Your task to perform on an android device: Go to internet settings Image 0: 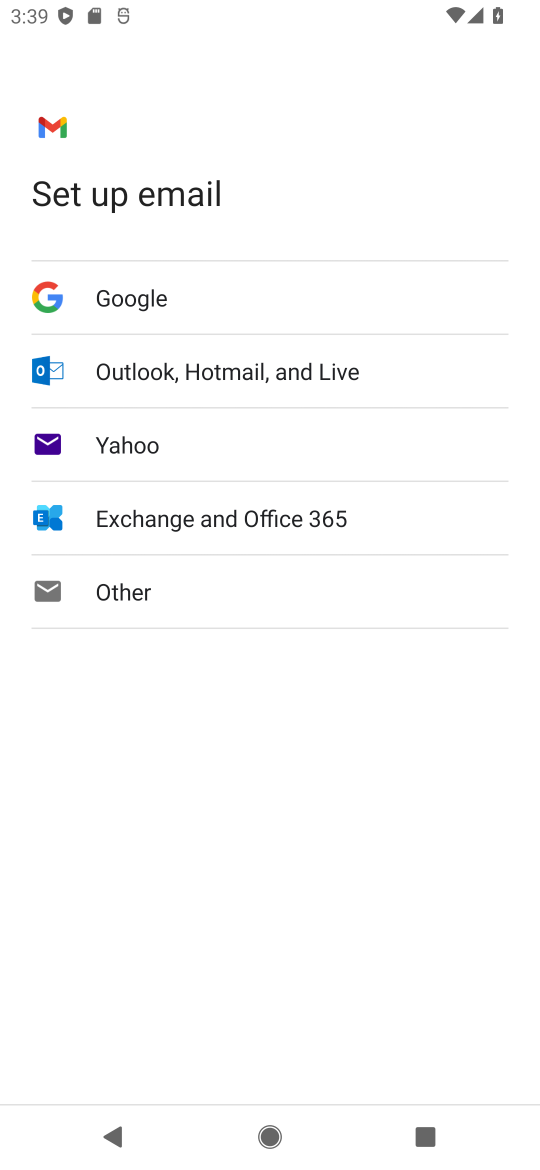
Step 0: press home button
Your task to perform on an android device: Go to internet settings Image 1: 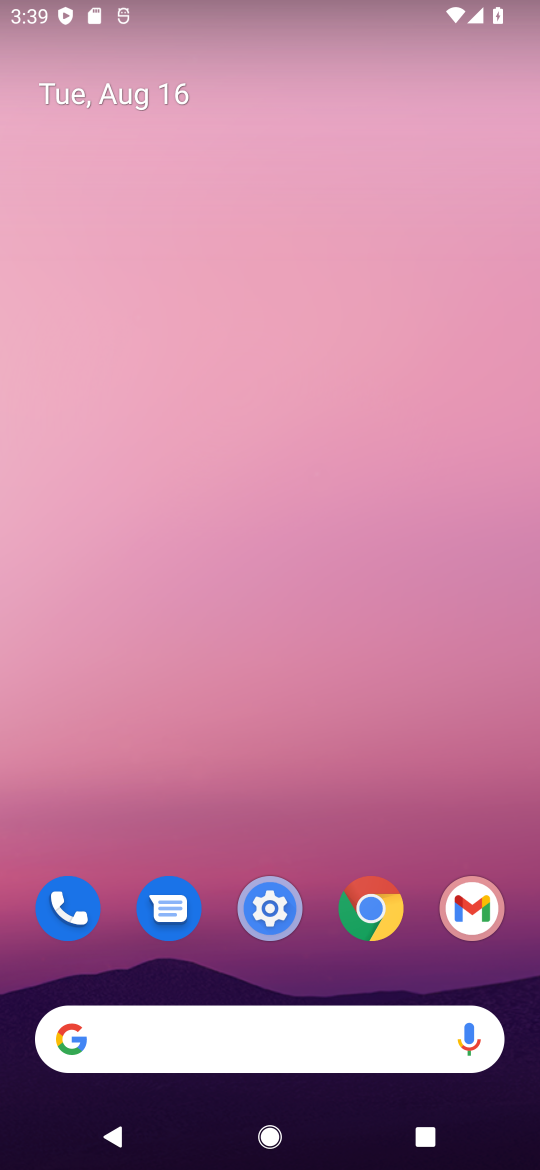
Step 1: drag from (314, 874) to (314, 113)
Your task to perform on an android device: Go to internet settings Image 2: 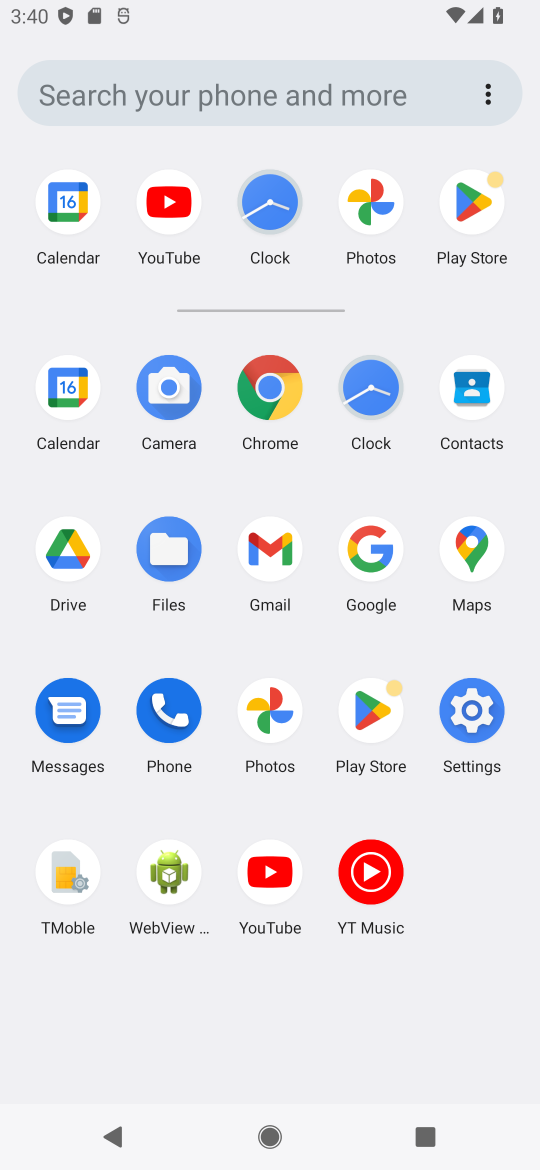
Step 2: click (469, 706)
Your task to perform on an android device: Go to internet settings Image 3: 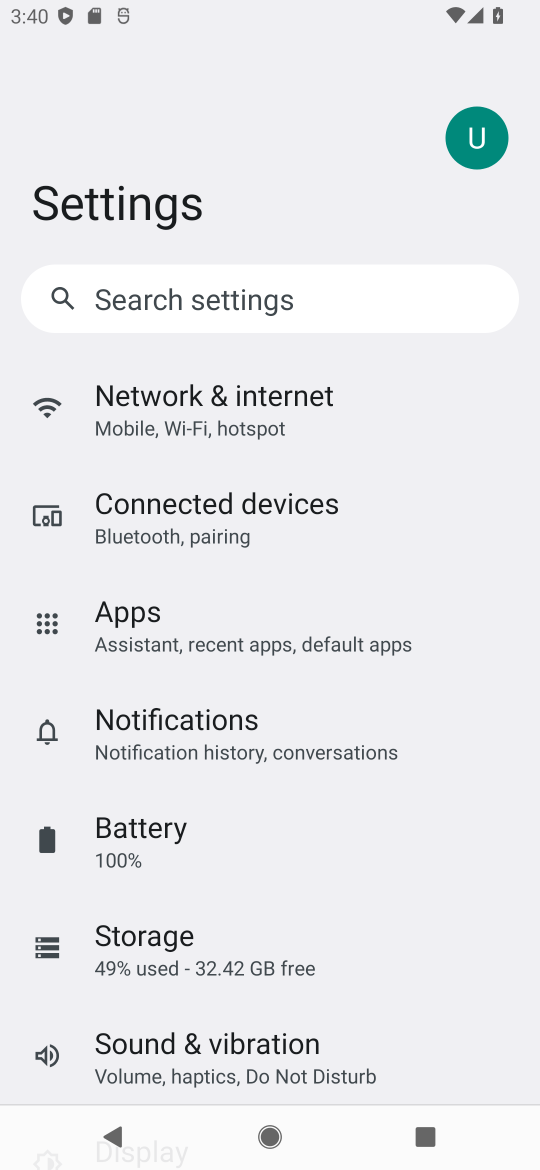
Step 3: click (230, 410)
Your task to perform on an android device: Go to internet settings Image 4: 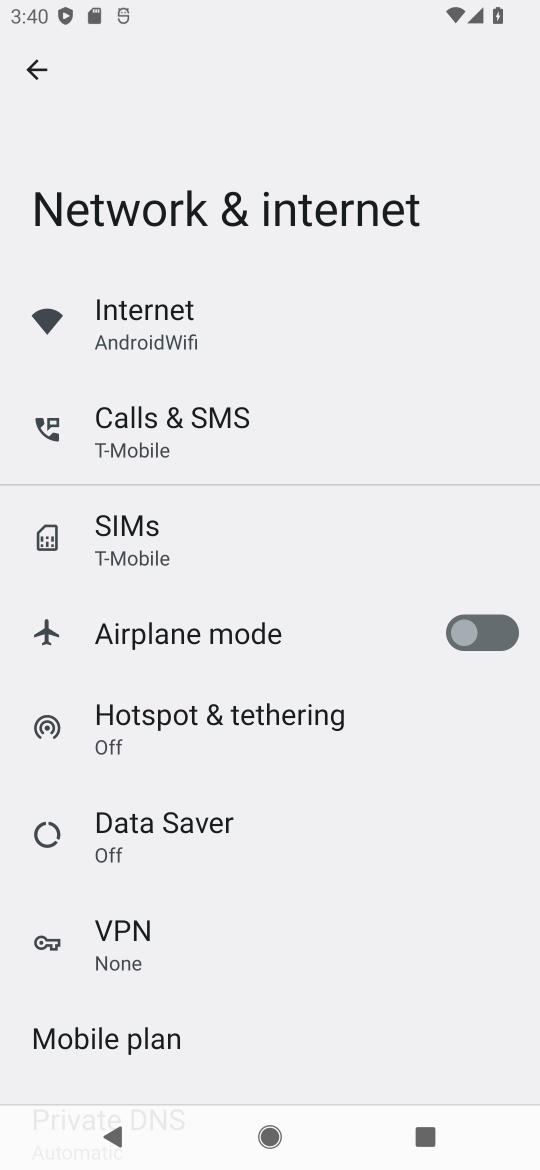
Step 4: task complete